Your task to perform on an android device: turn off wifi Image 0: 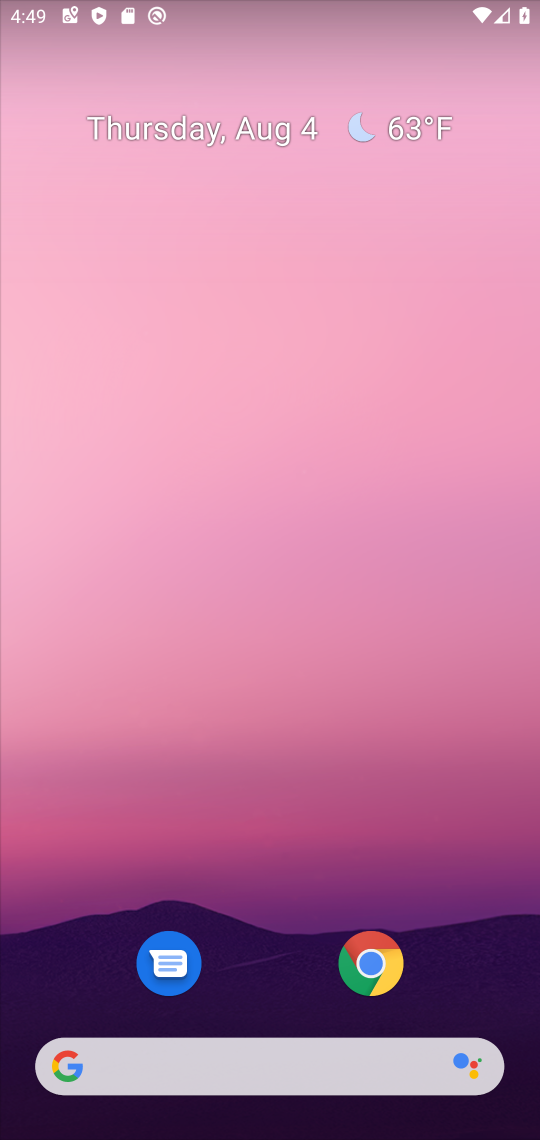
Step 0: drag from (236, 885) to (210, 196)
Your task to perform on an android device: turn off wifi Image 1: 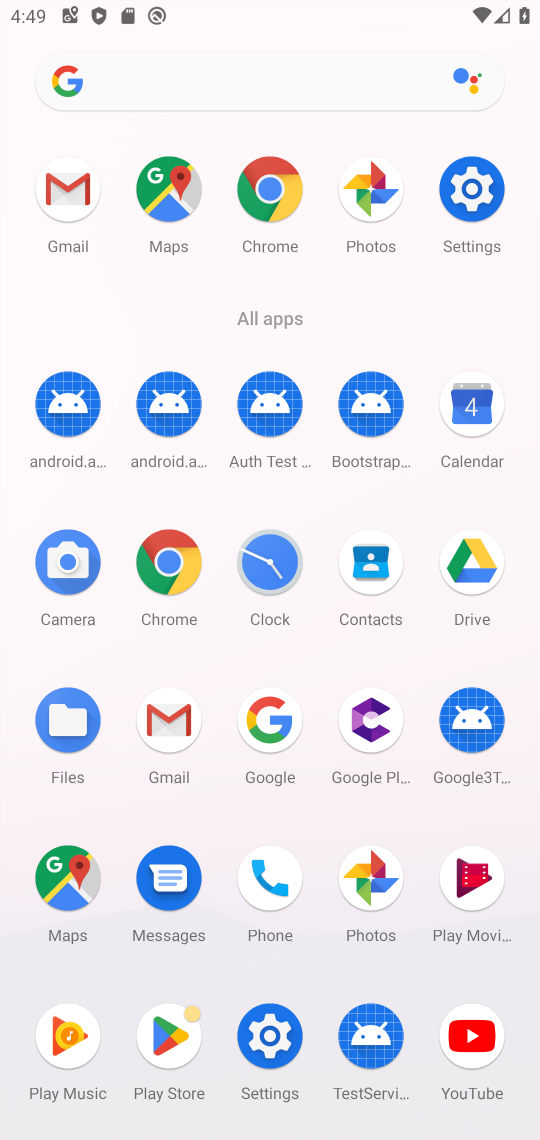
Step 1: click (471, 188)
Your task to perform on an android device: turn off wifi Image 2: 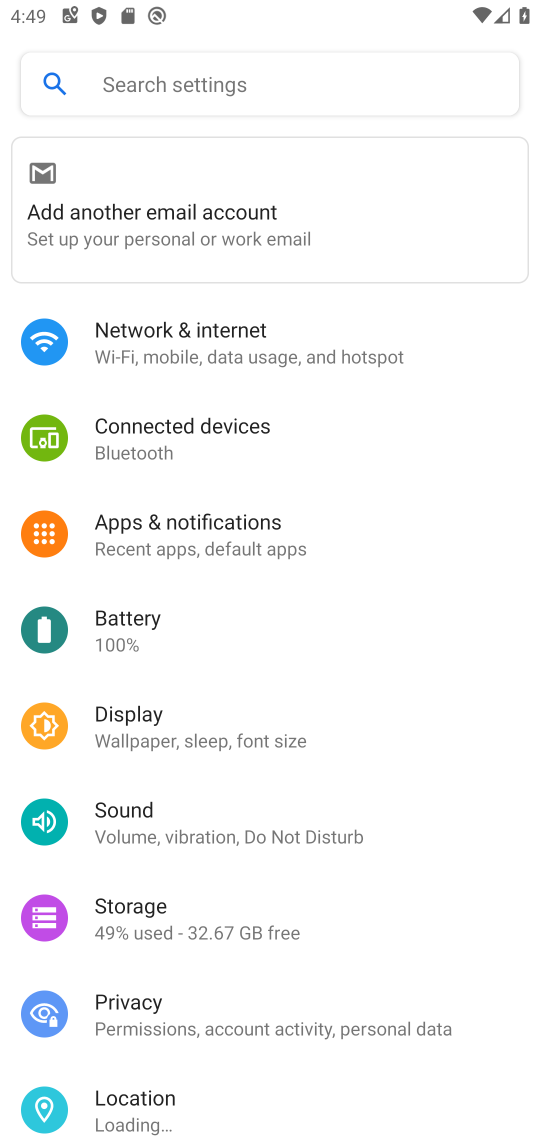
Step 2: click (181, 329)
Your task to perform on an android device: turn off wifi Image 3: 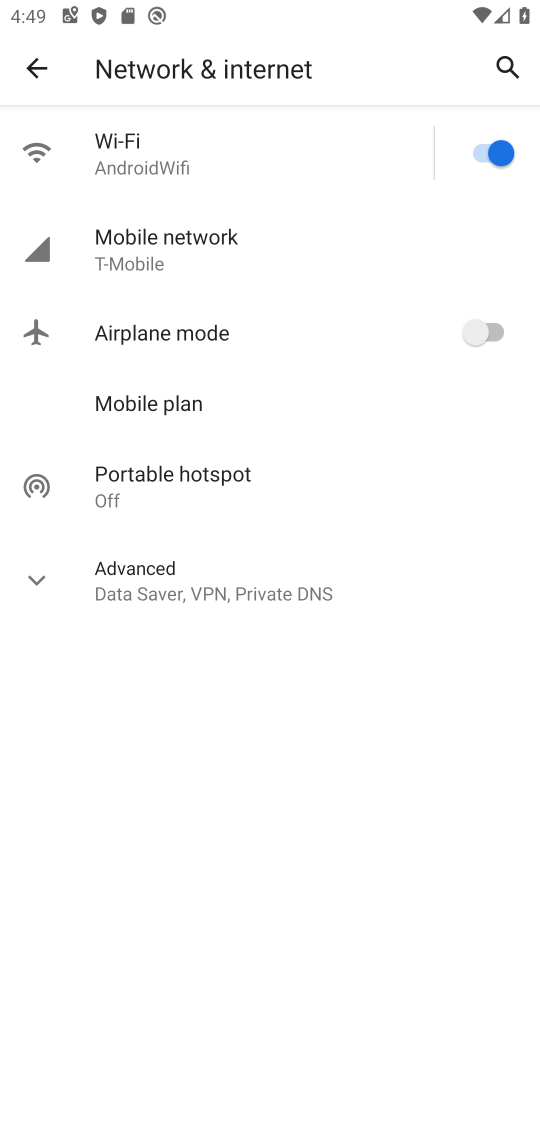
Step 3: click (497, 153)
Your task to perform on an android device: turn off wifi Image 4: 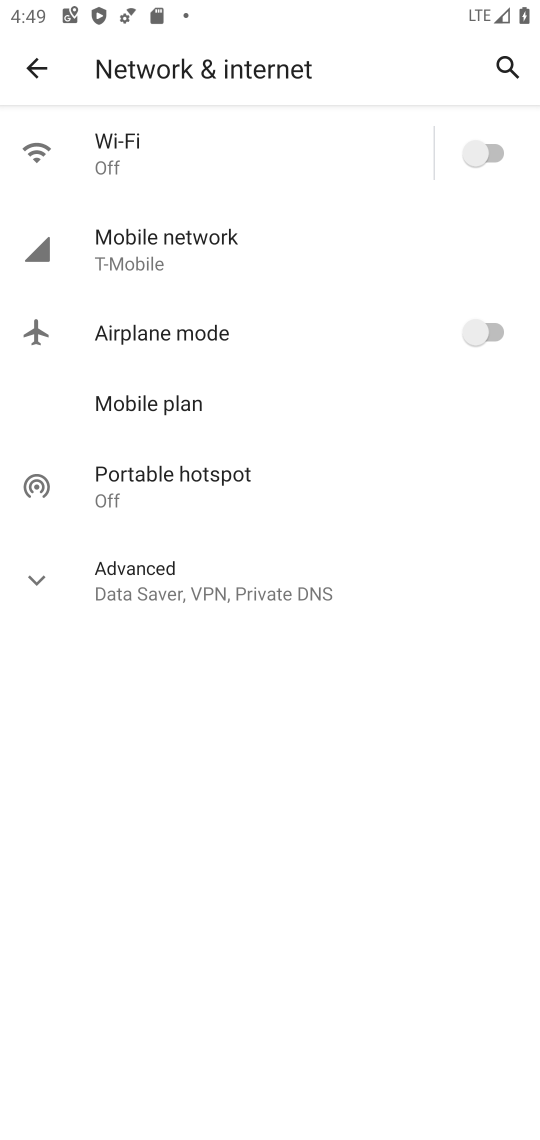
Step 4: task complete